Your task to perform on an android device: see creations saved in the google photos Image 0: 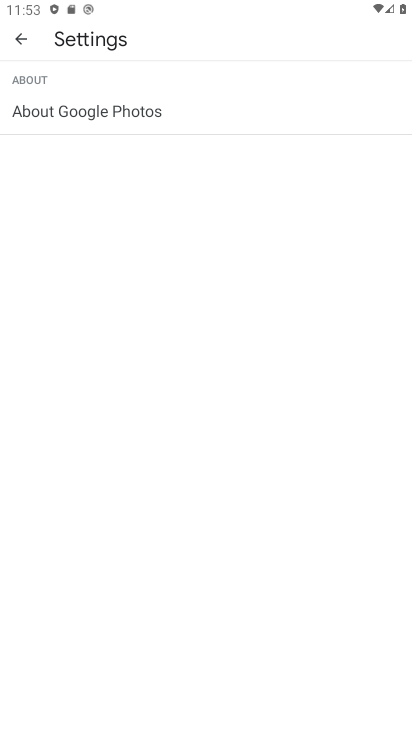
Step 0: press home button
Your task to perform on an android device: see creations saved in the google photos Image 1: 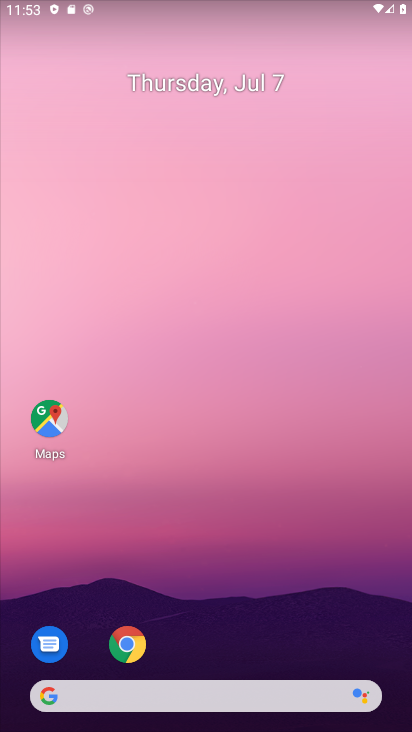
Step 1: drag from (214, 680) to (185, 152)
Your task to perform on an android device: see creations saved in the google photos Image 2: 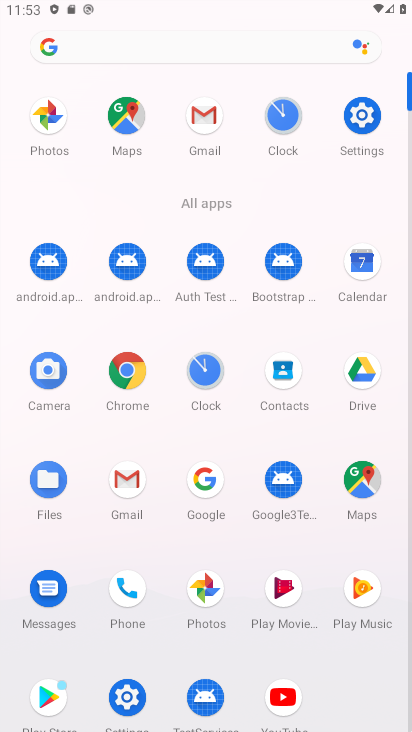
Step 2: click (202, 602)
Your task to perform on an android device: see creations saved in the google photos Image 3: 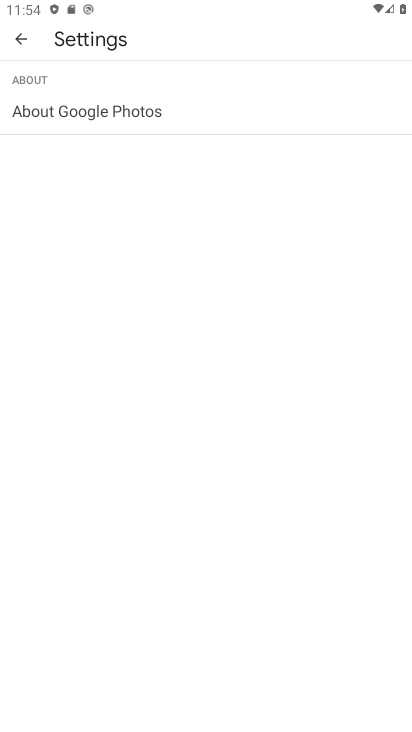
Step 3: click (202, 602)
Your task to perform on an android device: see creations saved in the google photos Image 4: 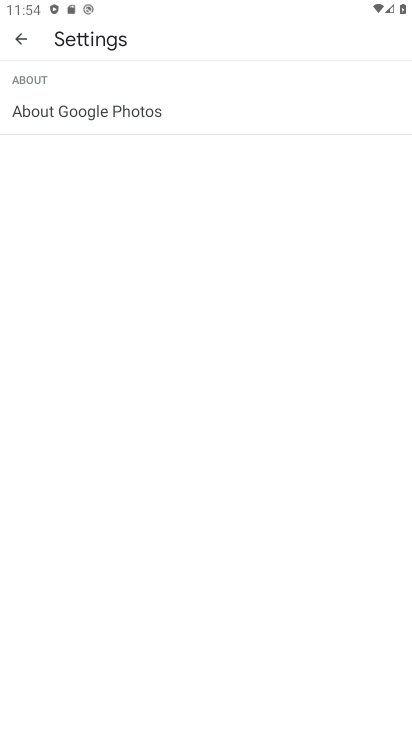
Step 4: click (26, 38)
Your task to perform on an android device: see creations saved in the google photos Image 5: 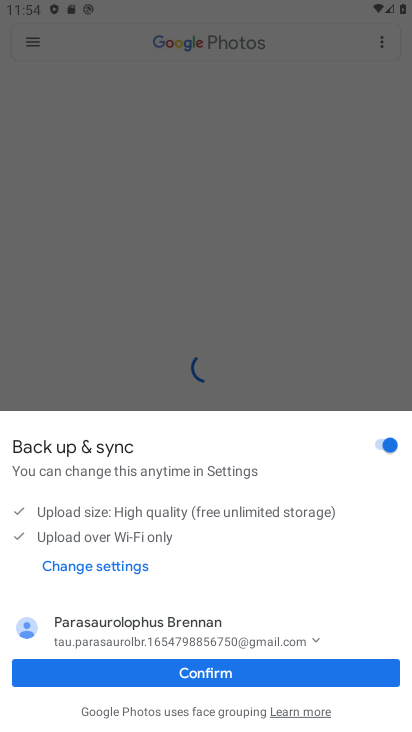
Step 5: click (251, 673)
Your task to perform on an android device: see creations saved in the google photos Image 6: 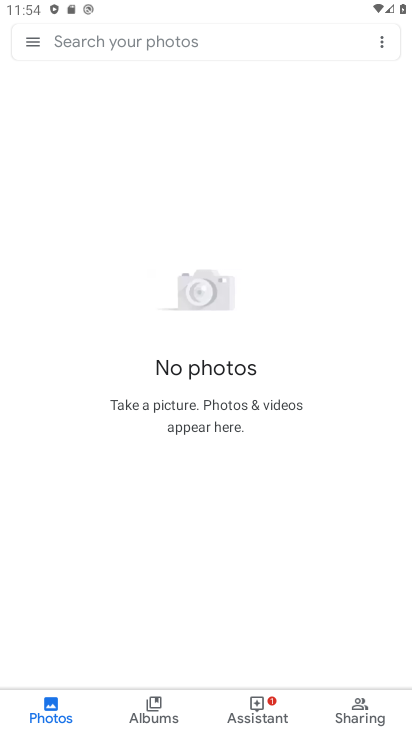
Step 6: click (259, 703)
Your task to perform on an android device: see creations saved in the google photos Image 7: 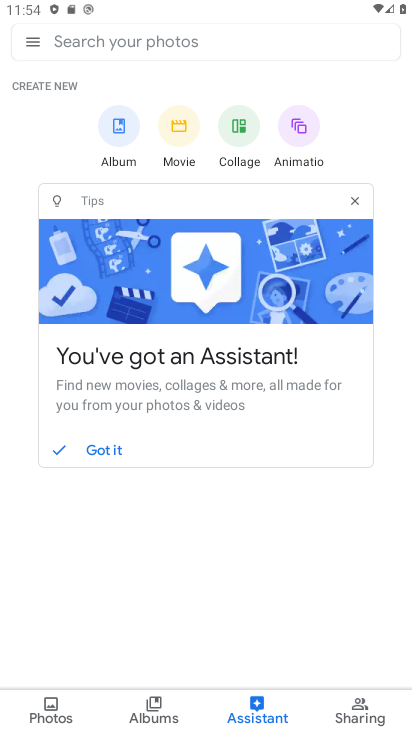
Step 7: click (102, 454)
Your task to perform on an android device: see creations saved in the google photos Image 8: 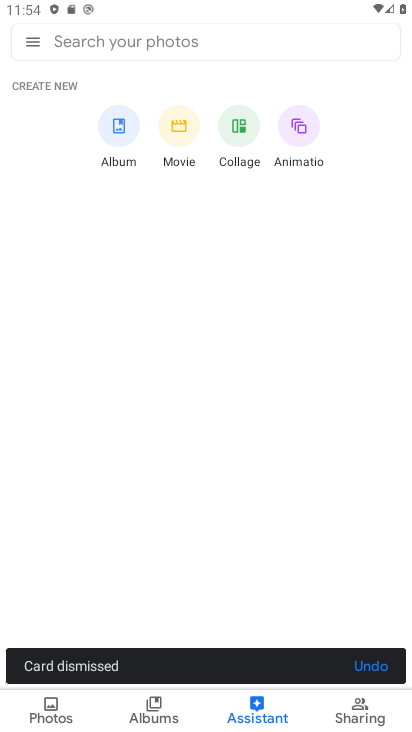
Step 8: task complete